Your task to perform on an android device: Open location settings Image 0: 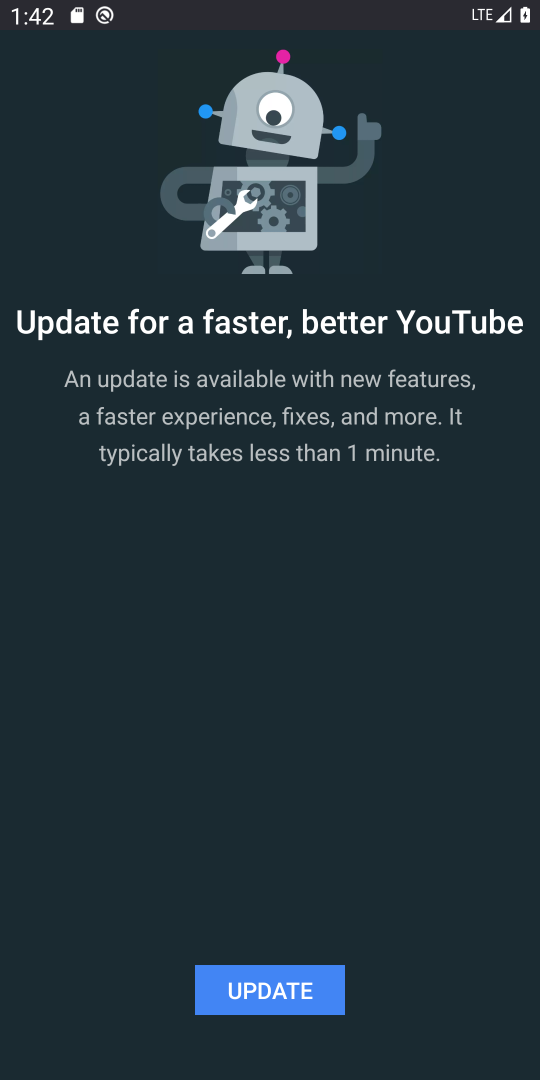
Step 0: press home button
Your task to perform on an android device: Open location settings Image 1: 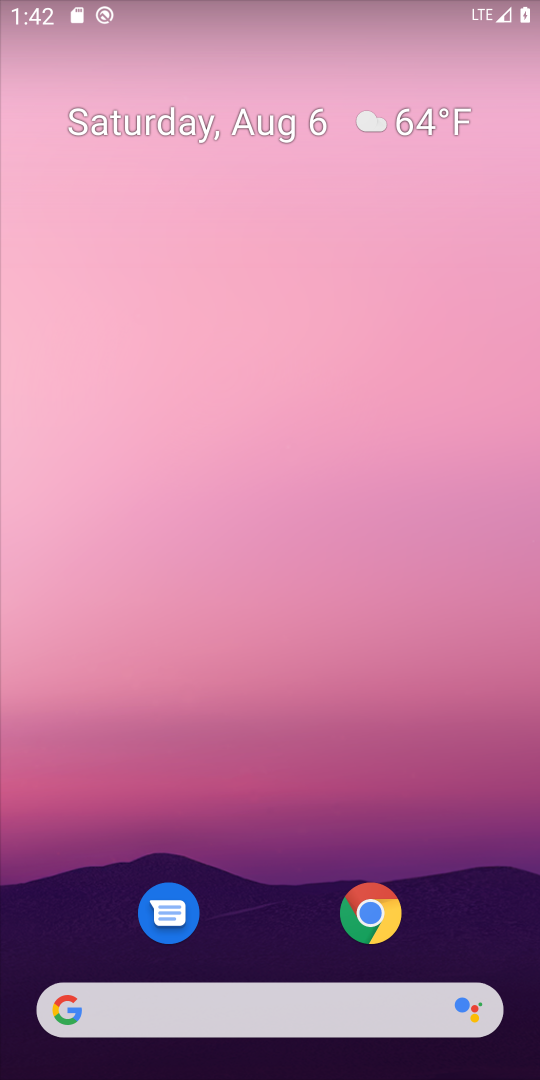
Step 1: drag from (299, 951) to (379, 129)
Your task to perform on an android device: Open location settings Image 2: 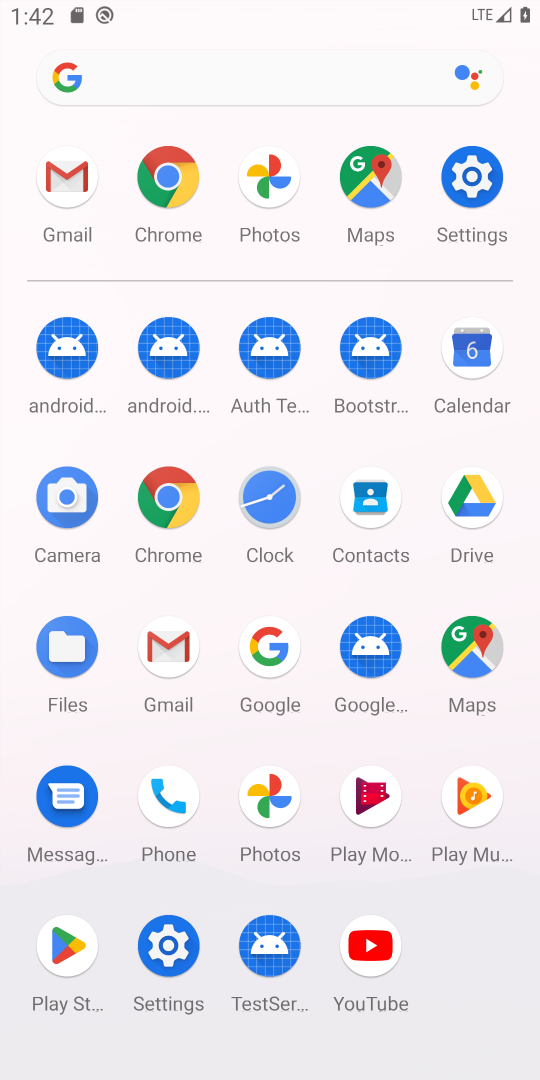
Step 2: click (483, 166)
Your task to perform on an android device: Open location settings Image 3: 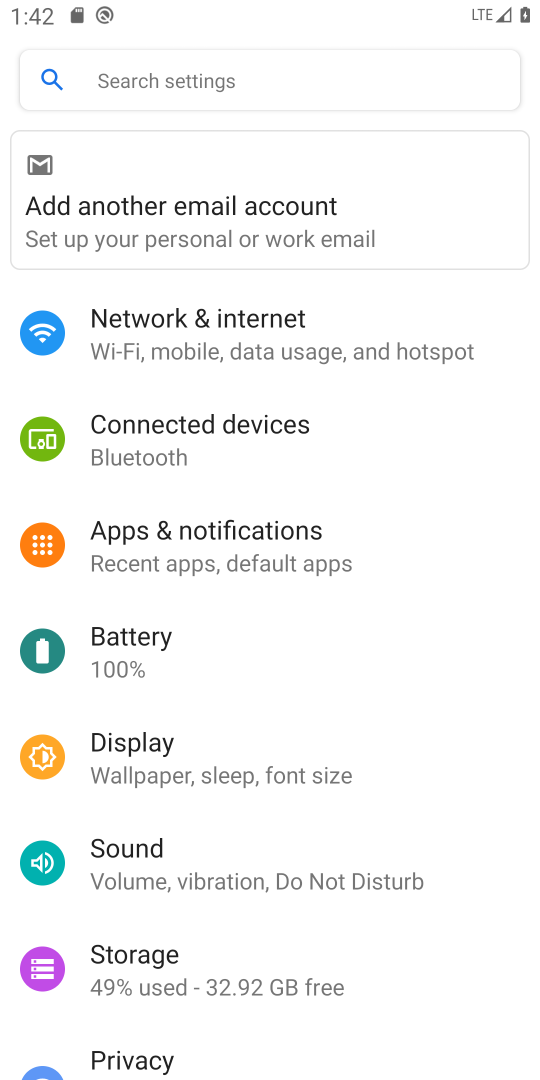
Step 3: drag from (411, 660) to (430, 410)
Your task to perform on an android device: Open location settings Image 4: 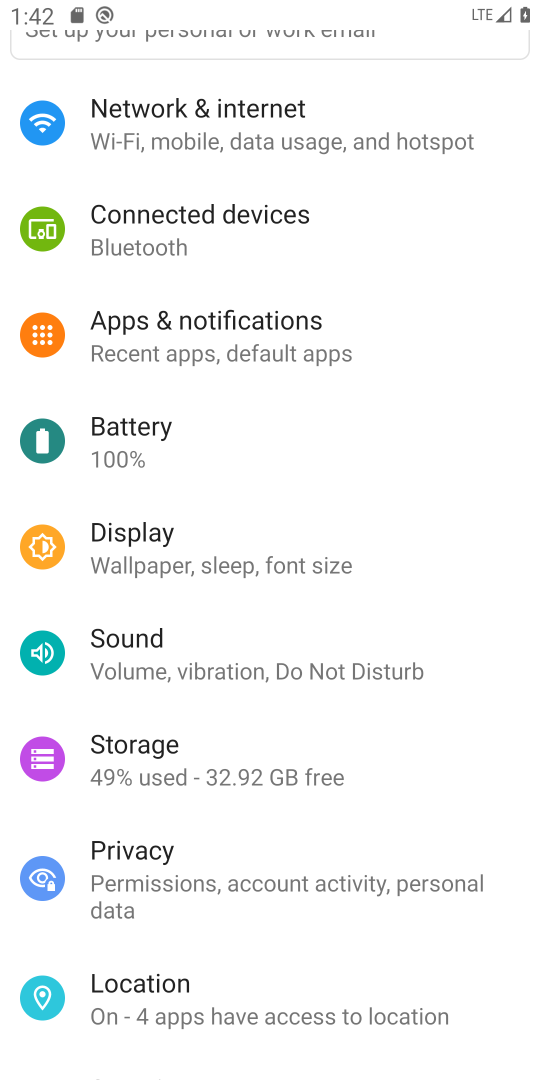
Step 4: drag from (433, 713) to (483, 468)
Your task to perform on an android device: Open location settings Image 5: 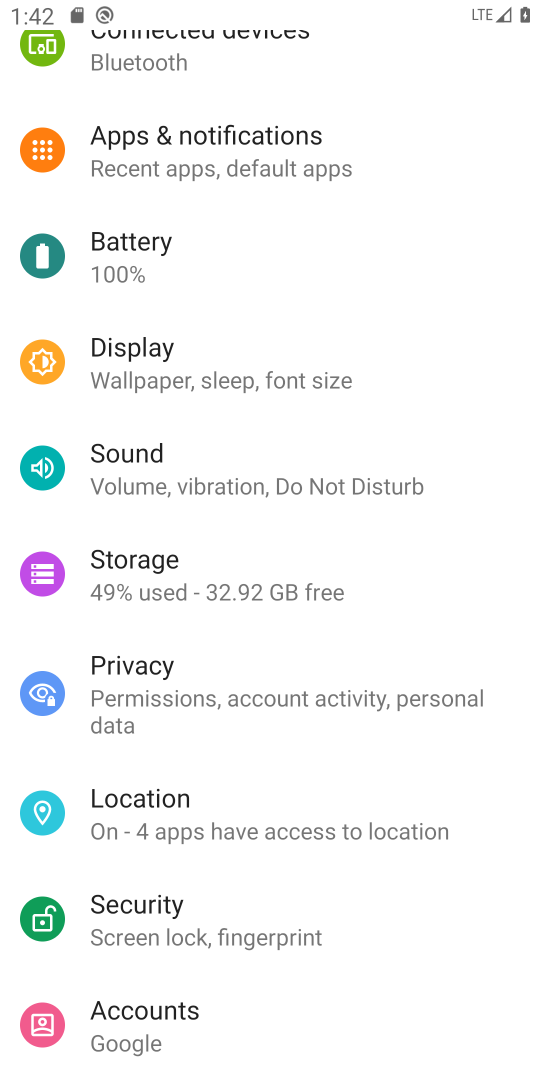
Step 5: drag from (421, 828) to (448, 491)
Your task to perform on an android device: Open location settings Image 6: 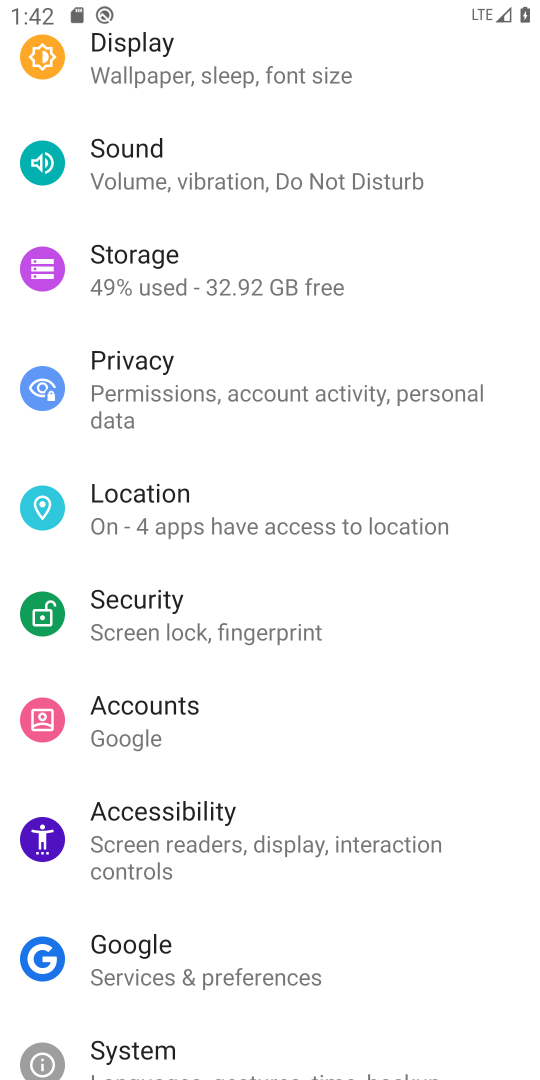
Step 6: click (377, 521)
Your task to perform on an android device: Open location settings Image 7: 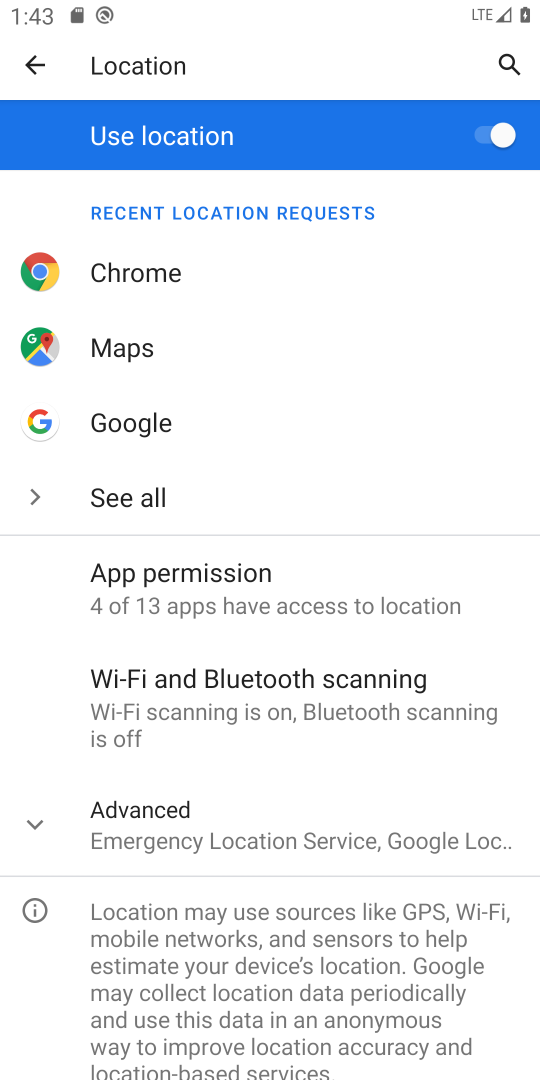
Step 7: task complete